Your task to perform on an android device: Show me popular games on the Play Store Image 0: 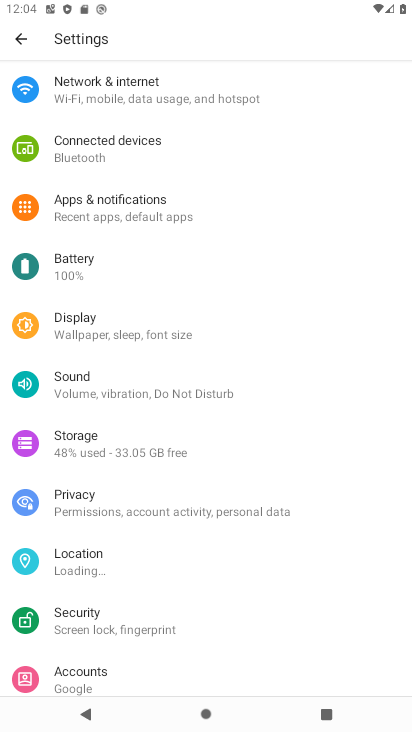
Step 0: press home button
Your task to perform on an android device: Show me popular games on the Play Store Image 1: 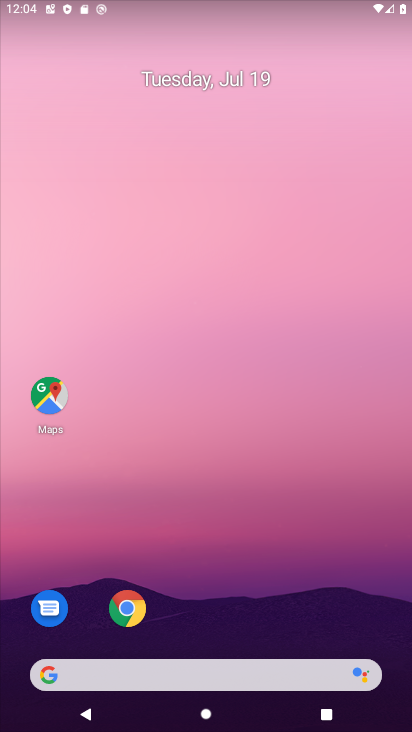
Step 1: drag from (238, 490) to (250, 109)
Your task to perform on an android device: Show me popular games on the Play Store Image 2: 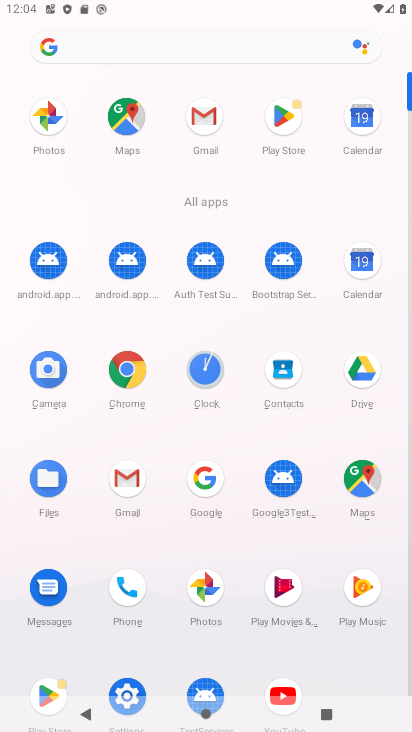
Step 2: click (46, 680)
Your task to perform on an android device: Show me popular games on the Play Store Image 3: 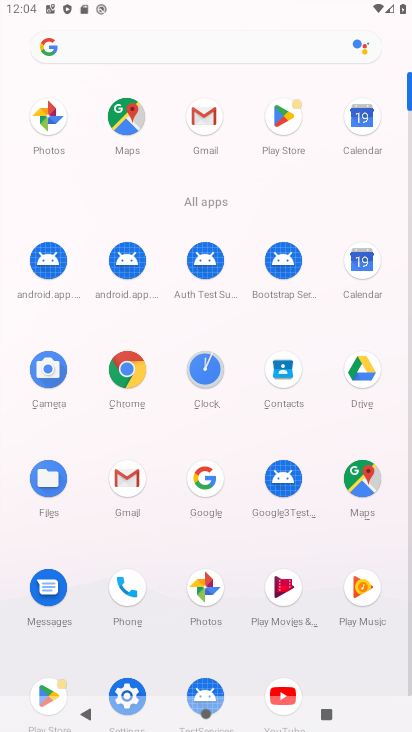
Step 3: click (46, 672)
Your task to perform on an android device: Show me popular games on the Play Store Image 4: 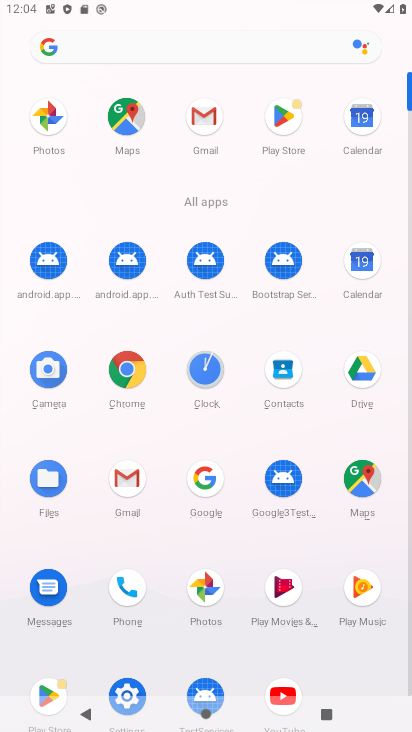
Step 4: click (46, 672)
Your task to perform on an android device: Show me popular games on the Play Store Image 5: 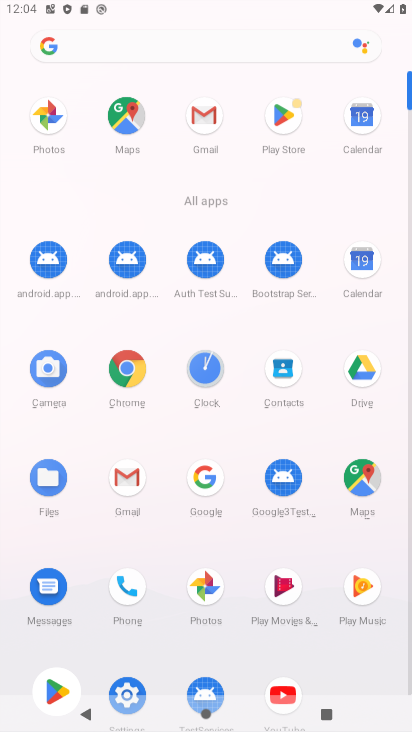
Step 5: click (46, 671)
Your task to perform on an android device: Show me popular games on the Play Store Image 6: 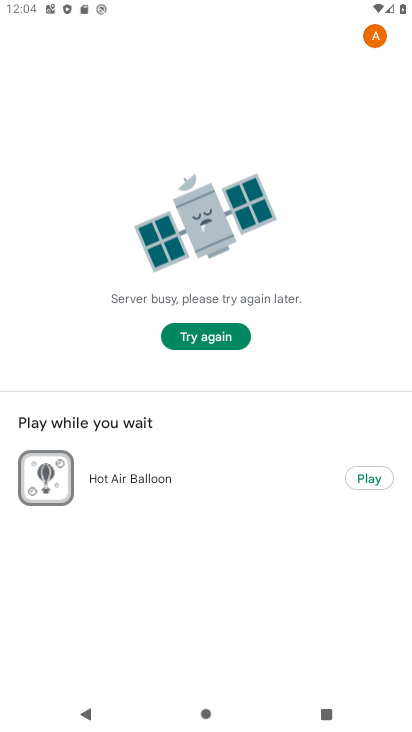
Step 6: task complete